Your task to perform on an android device: Go to Google maps Image 0: 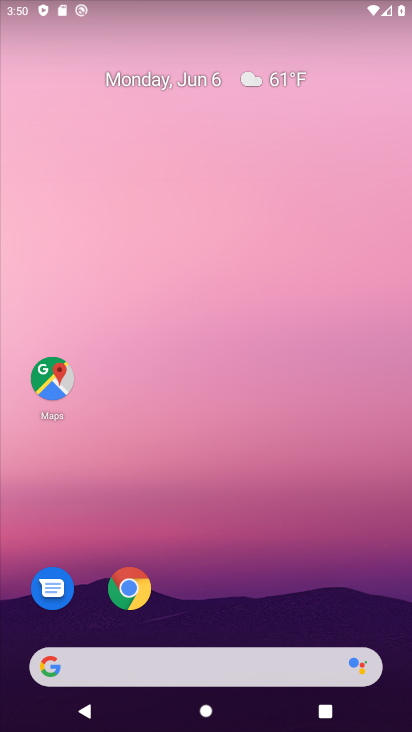
Step 0: drag from (299, 632) to (268, 129)
Your task to perform on an android device: Go to Google maps Image 1: 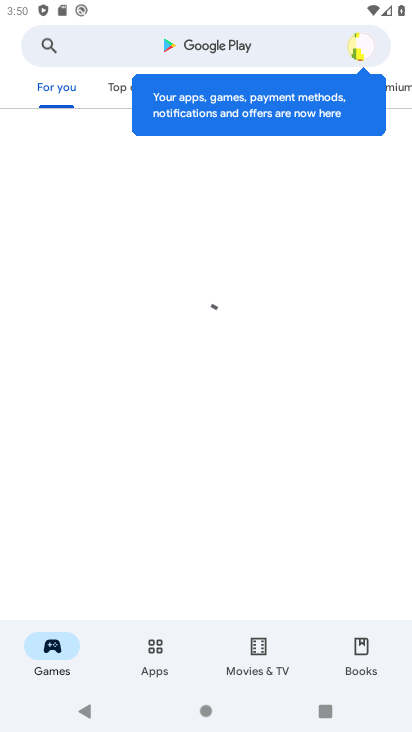
Step 1: press back button
Your task to perform on an android device: Go to Google maps Image 2: 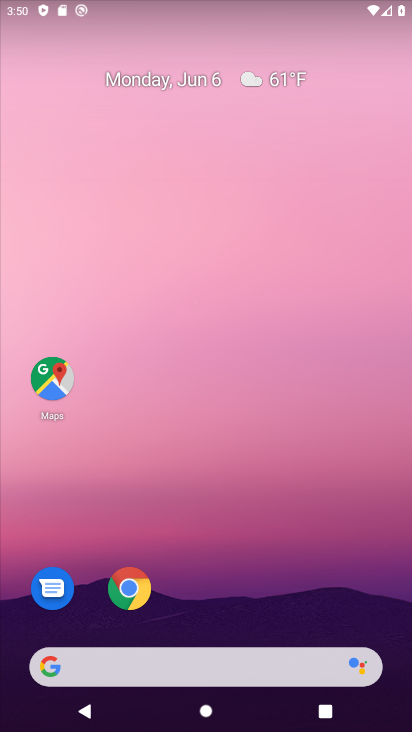
Step 2: drag from (258, 656) to (147, 182)
Your task to perform on an android device: Go to Google maps Image 3: 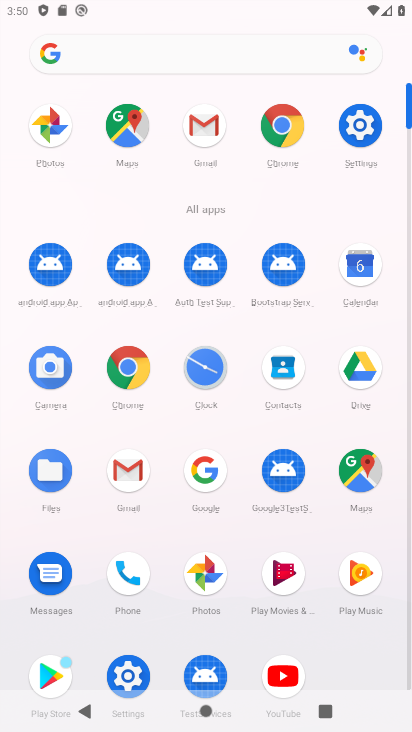
Step 3: click (118, 112)
Your task to perform on an android device: Go to Google maps Image 4: 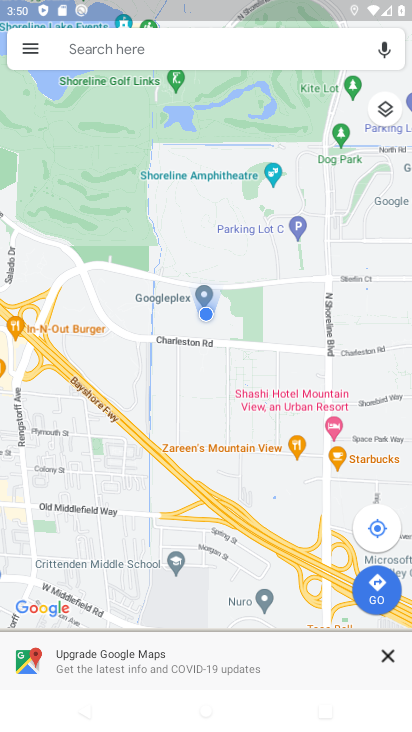
Step 4: task complete